Your task to perform on an android device: Open Google Chrome and click the shortcut for Amazon.com Image 0: 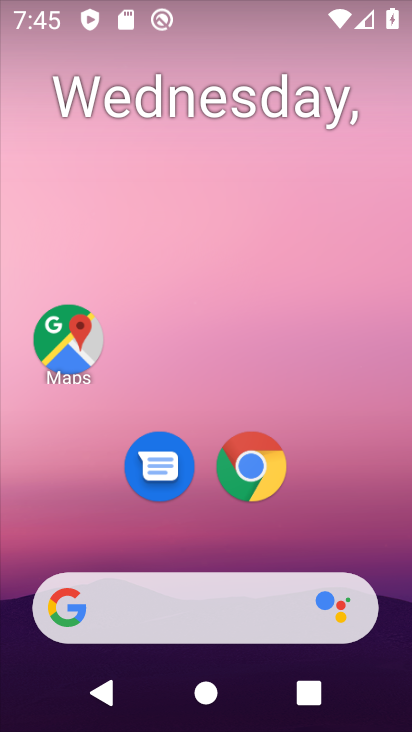
Step 0: click (240, 462)
Your task to perform on an android device: Open Google Chrome and click the shortcut for Amazon.com Image 1: 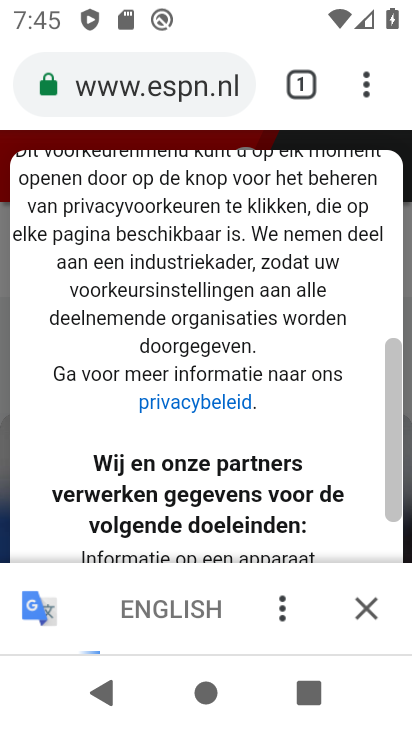
Step 1: click (283, 87)
Your task to perform on an android device: Open Google Chrome and click the shortcut for Amazon.com Image 2: 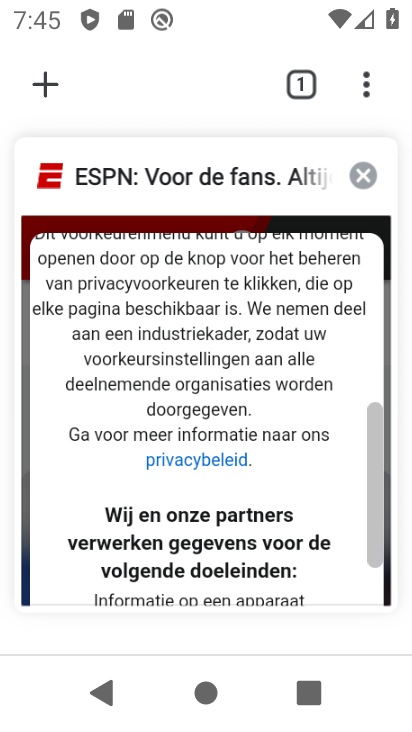
Step 2: click (49, 83)
Your task to perform on an android device: Open Google Chrome and click the shortcut for Amazon.com Image 3: 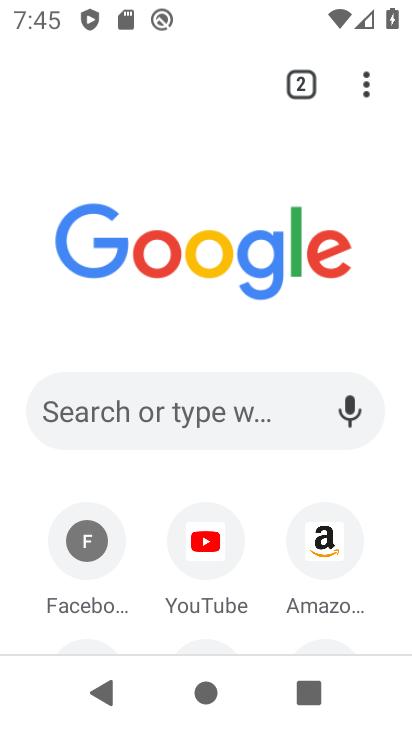
Step 3: click (337, 546)
Your task to perform on an android device: Open Google Chrome and click the shortcut for Amazon.com Image 4: 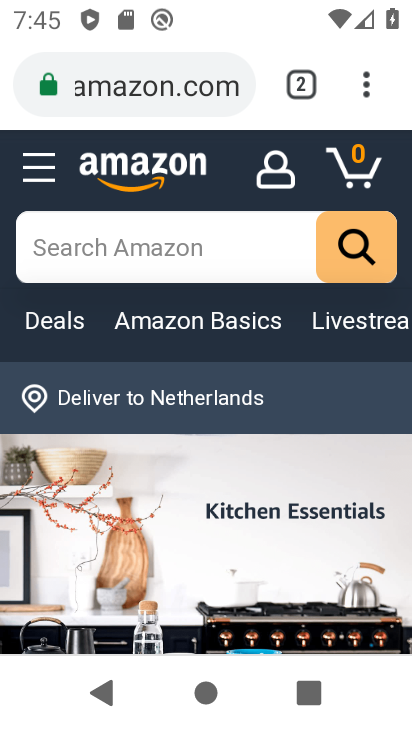
Step 4: task complete